Your task to perform on an android device: turn off improve location accuracy Image 0: 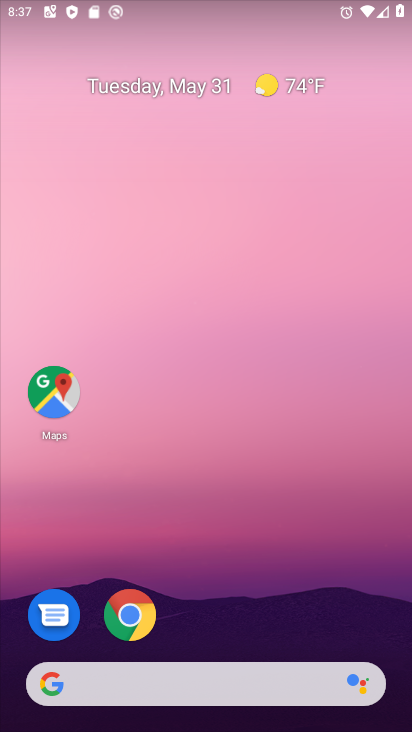
Step 0: drag from (212, 642) to (220, 258)
Your task to perform on an android device: turn off improve location accuracy Image 1: 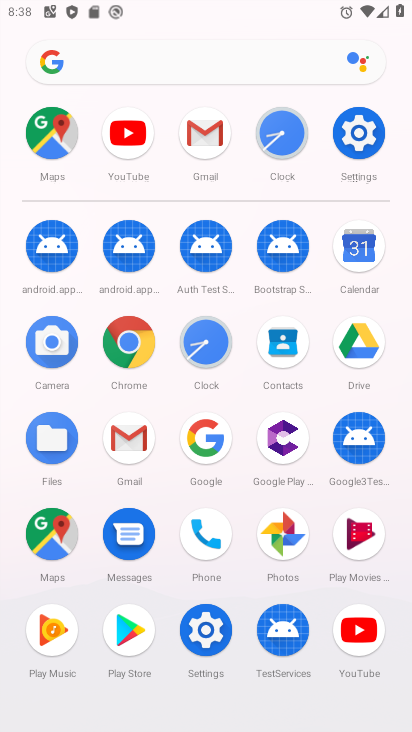
Step 1: click (362, 129)
Your task to perform on an android device: turn off improve location accuracy Image 2: 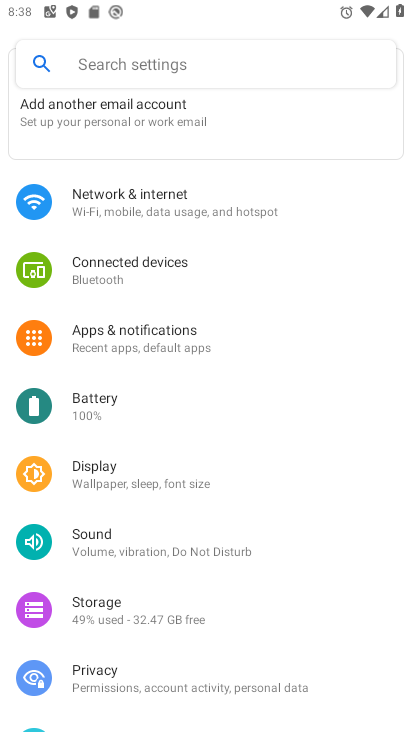
Step 2: drag from (129, 627) to (173, 290)
Your task to perform on an android device: turn off improve location accuracy Image 3: 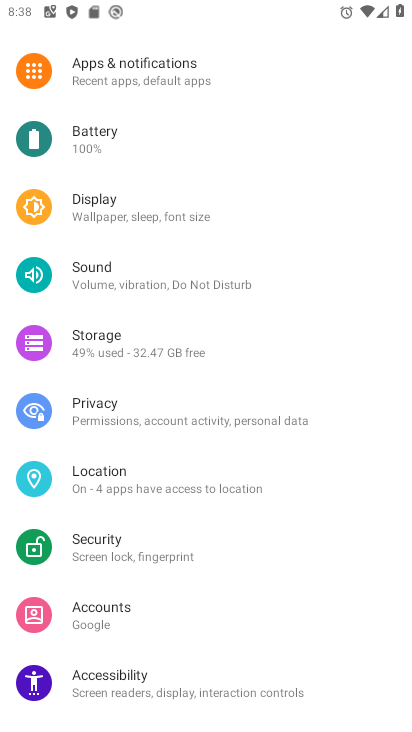
Step 3: click (134, 486)
Your task to perform on an android device: turn off improve location accuracy Image 4: 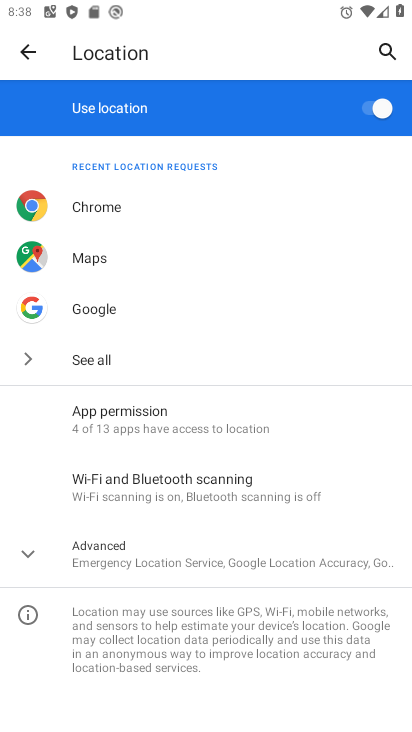
Step 4: click (138, 545)
Your task to perform on an android device: turn off improve location accuracy Image 5: 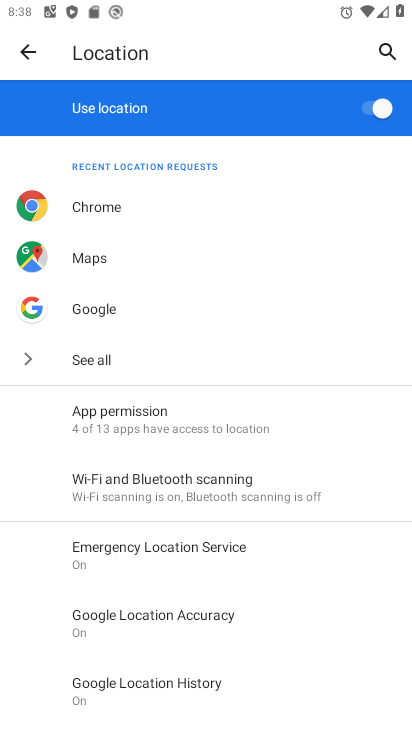
Step 5: click (188, 626)
Your task to perform on an android device: turn off improve location accuracy Image 6: 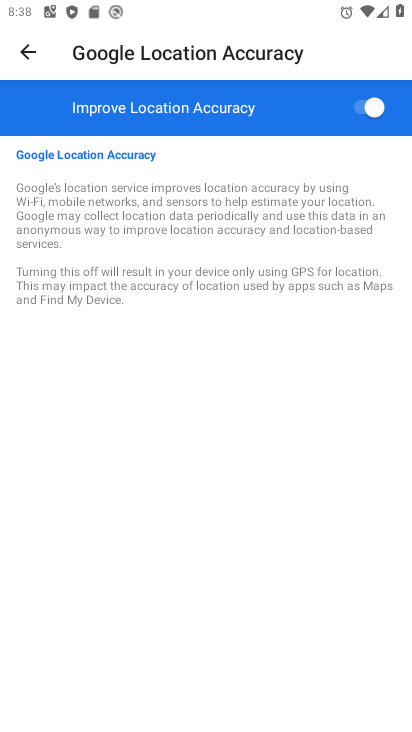
Step 6: click (369, 110)
Your task to perform on an android device: turn off improve location accuracy Image 7: 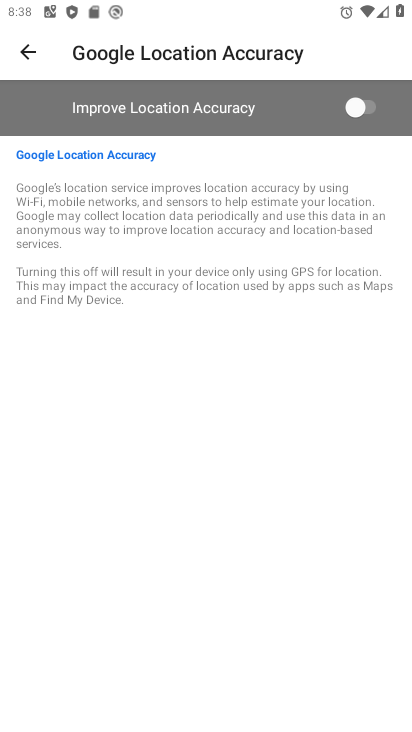
Step 7: task complete